Your task to perform on an android device: delete browsing data in the chrome app Image 0: 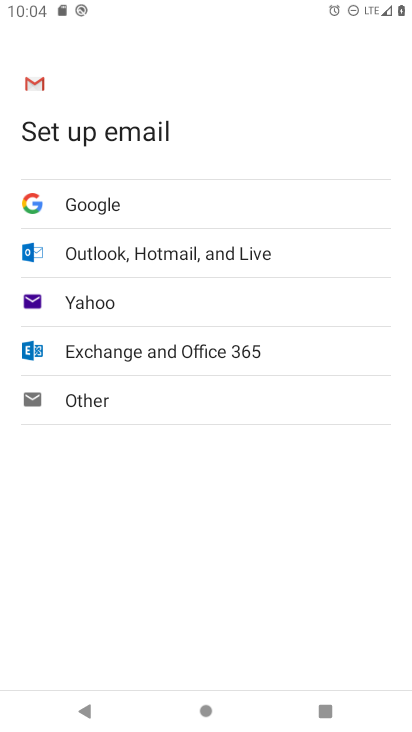
Step 0: press home button
Your task to perform on an android device: delete browsing data in the chrome app Image 1: 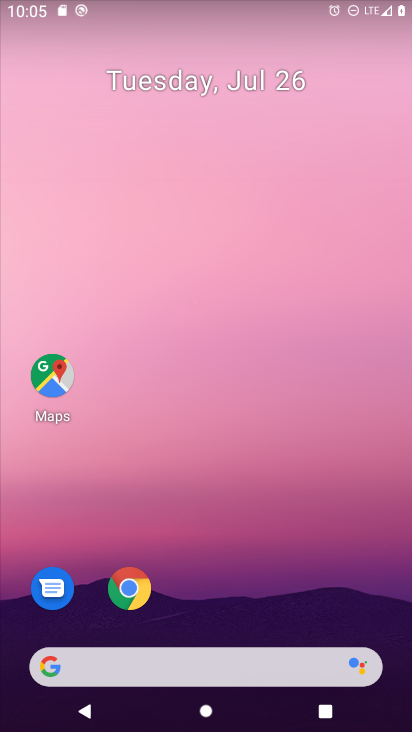
Step 1: click (377, 439)
Your task to perform on an android device: delete browsing data in the chrome app Image 2: 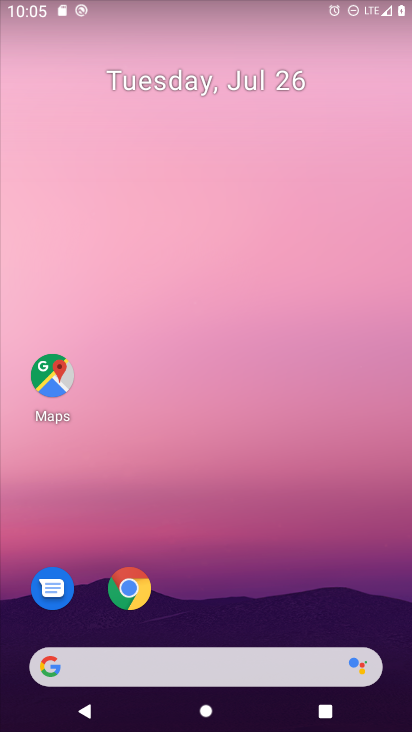
Step 2: drag from (224, 578) to (411, 137)
Your task to perform on an android device: delete browsing data in the chrome app Image 3: 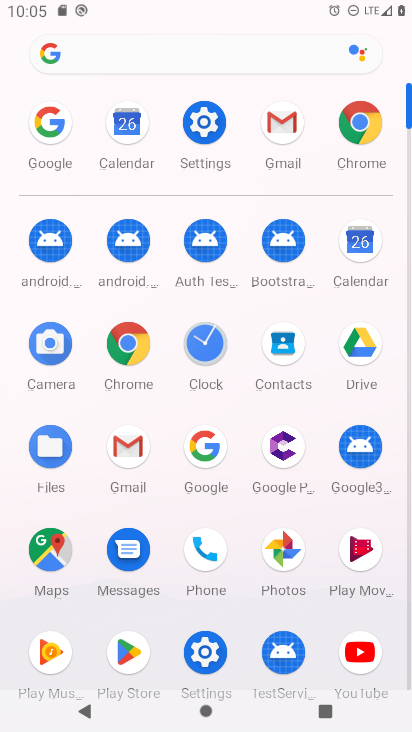
Step 3: click (368, 148)
Your task to perform on an android device: delete browsing data in the chrome app Image 4: 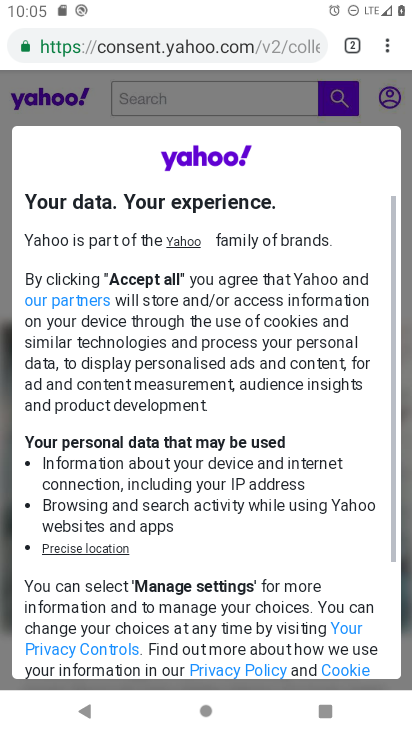
Step 4: click (386, 44)
Your task to perform on an android device: delete browsing data in the chrome app Image 5: 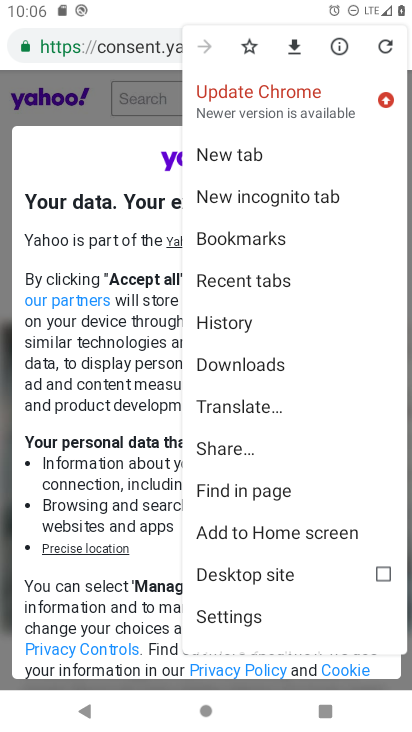
Step 5: click (220, 319)
Your task to perform on an android device: delete browsing data in the chrome app Image 6: 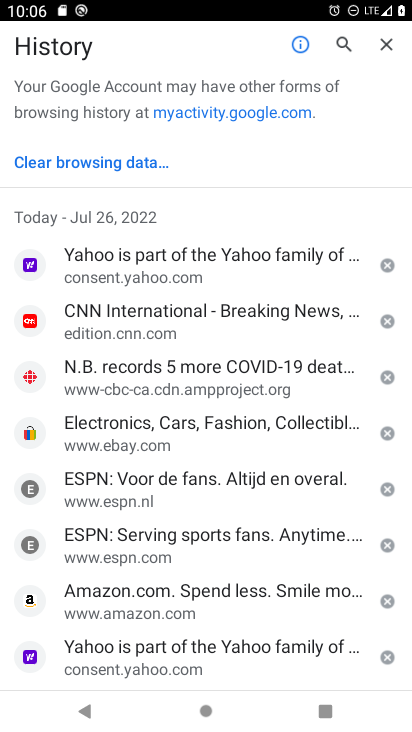
Step 6: click (128, 168)
Your task to perform on an android device: delete browsing data in the chrome app Image 7: 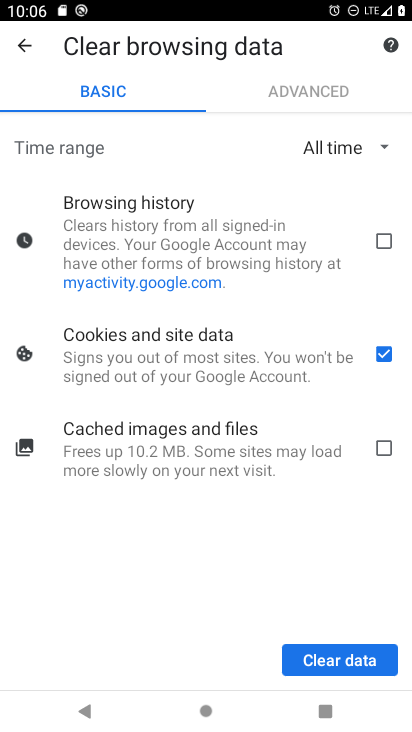
Step 7: click (384, 364)
Your task to perform on an android device: delete browsing data in the chrome app Image 8: 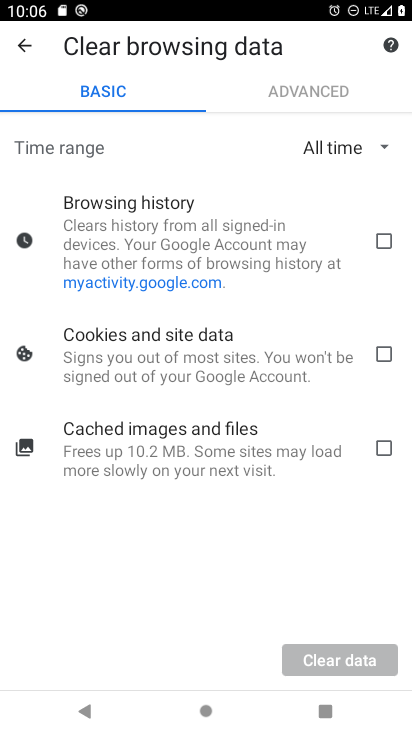
Step 8: click (382, 232)
Your task to perform on an android device: delete browsing data in the chrome app Image 9: 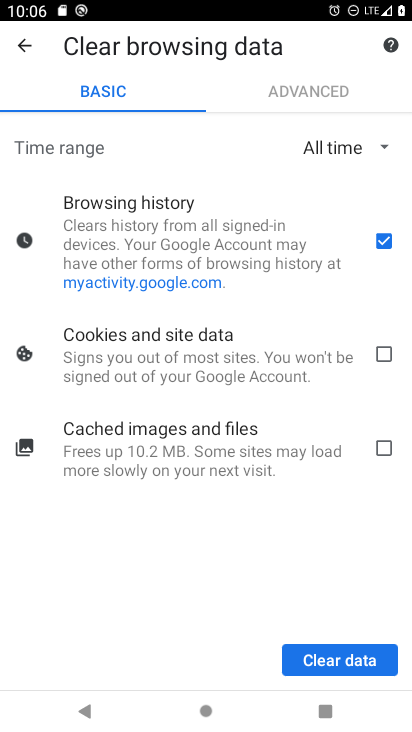
Step 9: click (365, 661)
Your task to perform on an android device: delete browsing data in the chrome app Image 10: 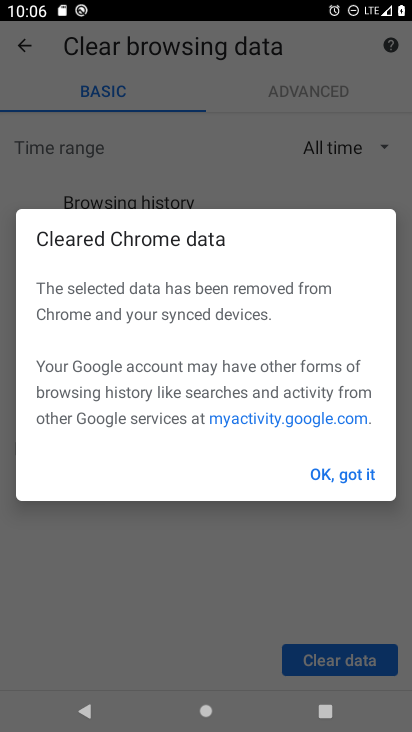
Step 10: click (332, 476)
Your task to perform on an android device: delete browsing data in the chrome app Image 11: 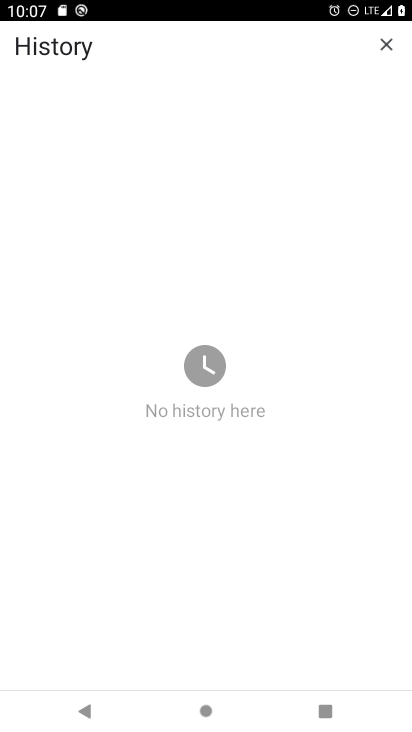
Step 11: task complete